Your task to perform on an android device: Do I have any events this weekend? Image 0: 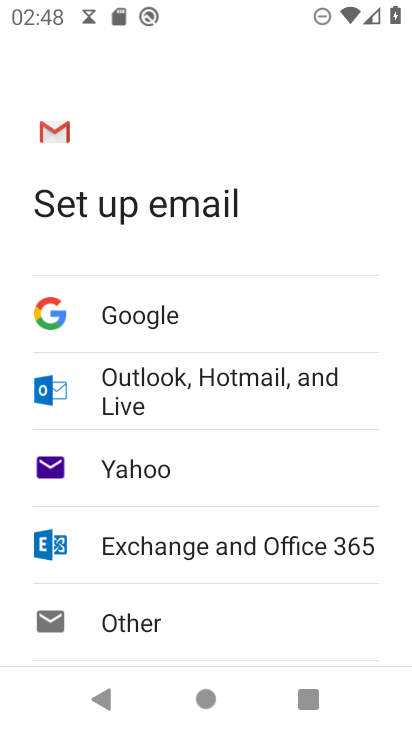
Step 0: press home button
Your task to perform on an android device: Do I have any events this weekend? Image 1: 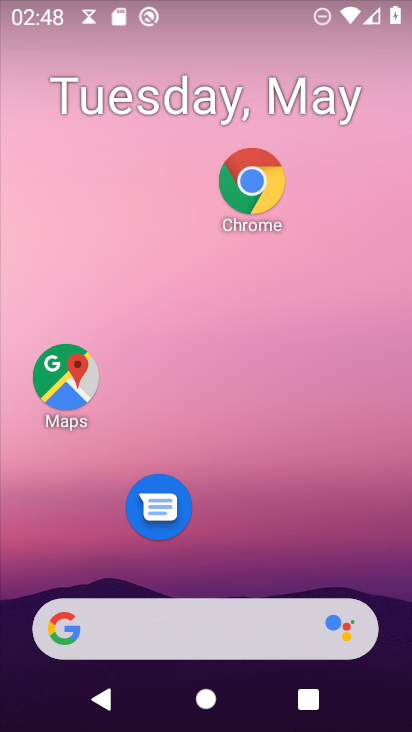
Step 1: drag from (276, 527) to (267, 259)
Your task to perform on an android device: Do I have any events this weekend? Image 2: 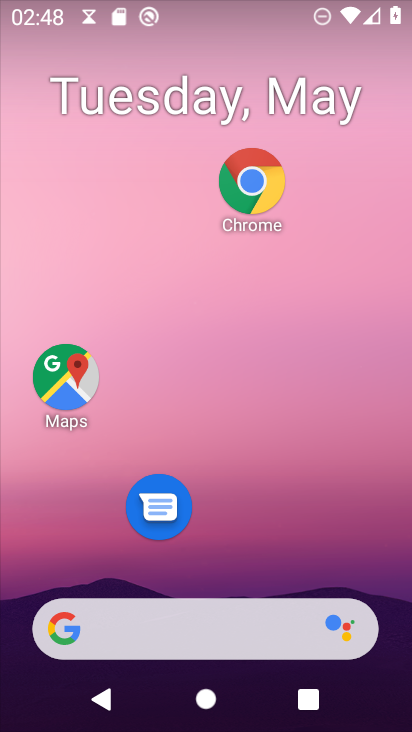
Step 2: drag from (291, 564) to (295, 251)
Your task to perform on an android device: Do I have any events this weekend? Image 3: 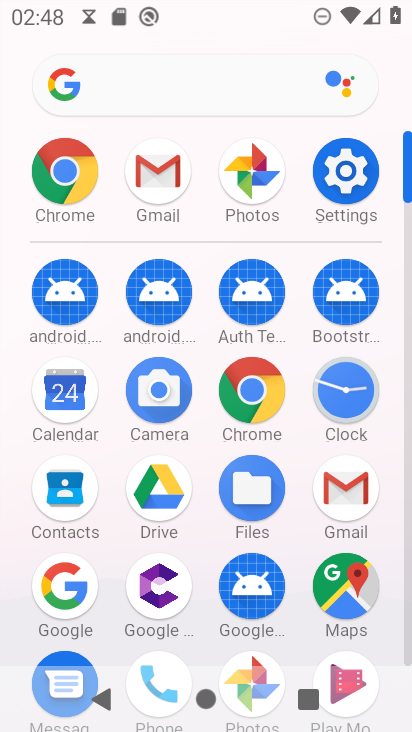
Step 3: click (58, 391)
Your task to perform on an android device: Do I have any events this weekend? Image 4: 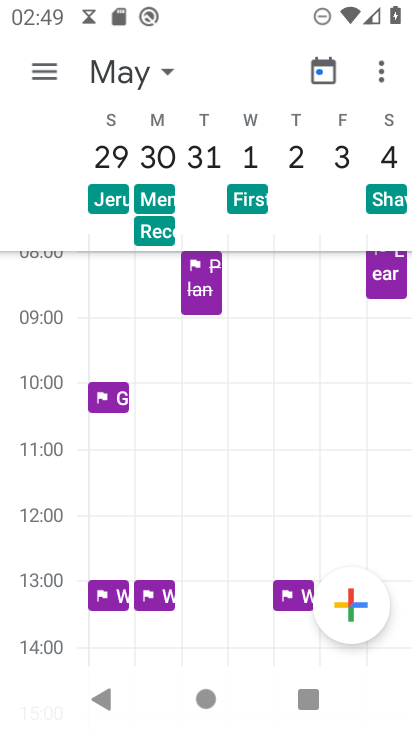
Step 4: task complete